Your task to perform on an android device: Open accessibility settings Image 0: 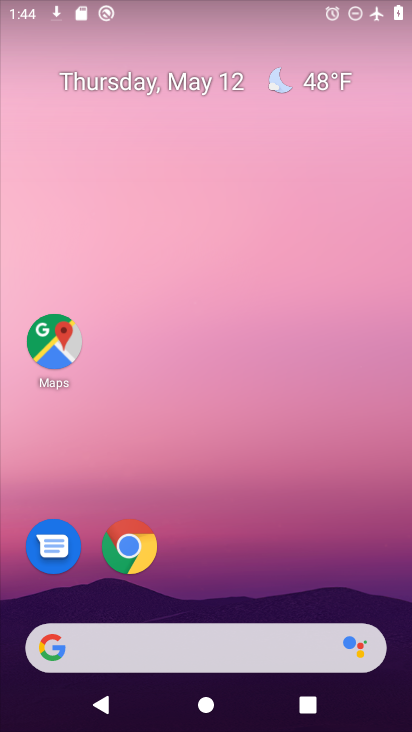
Step 0: drag from (183, 631) to (305, 170)
Your task to perform on an android device: Open accessibility settings Image 1: 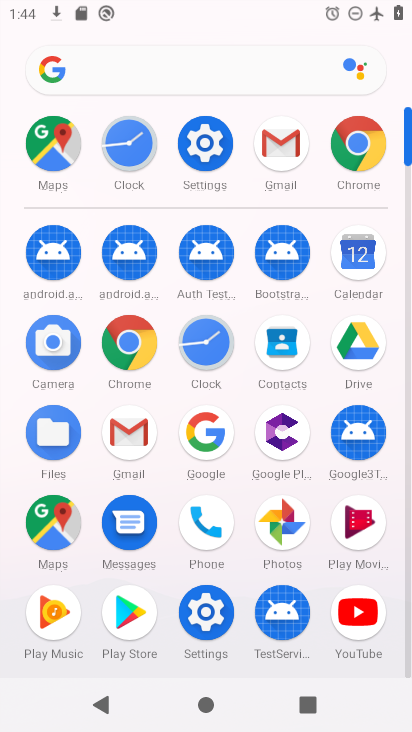
Step 1: click (210, 153)
Your task to perform on an android device: Open accessibility settings Image 2: 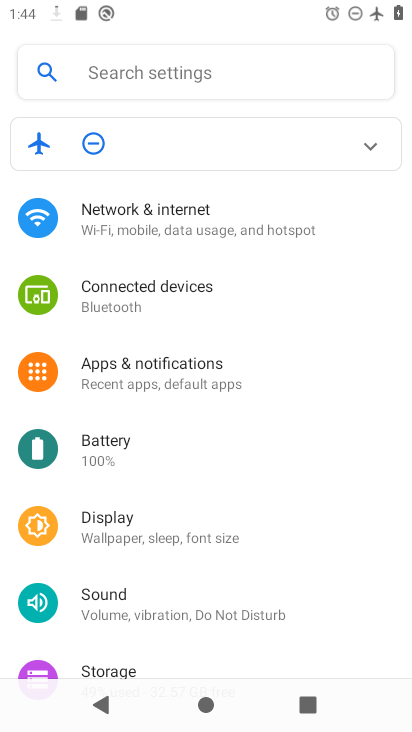
Step 2: drag from (235, 588) to (241, 170)
Your task to perform on an android device: Open accessibility settings Image 3: 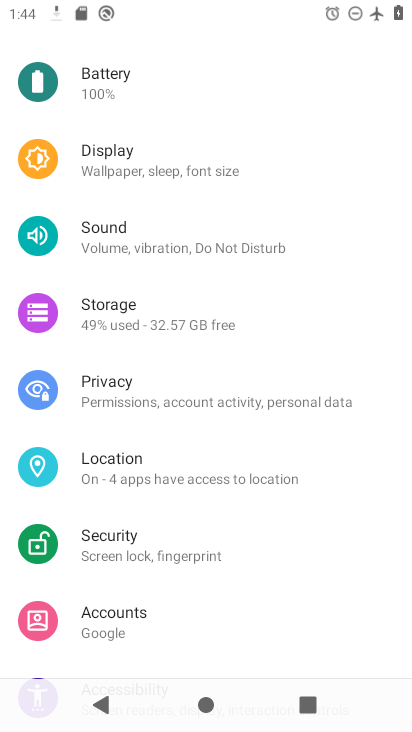
Step 3: drag from (270, 560) to (295, 262)
Your task to perform on an android device: Open accessibility settings Image 4: 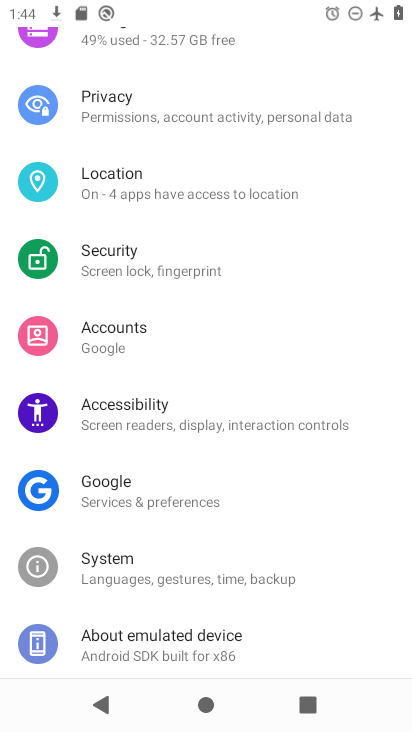
Step 4: click (144, 415)
Your task to perform on an android device: Open accessibility settings Image 5: 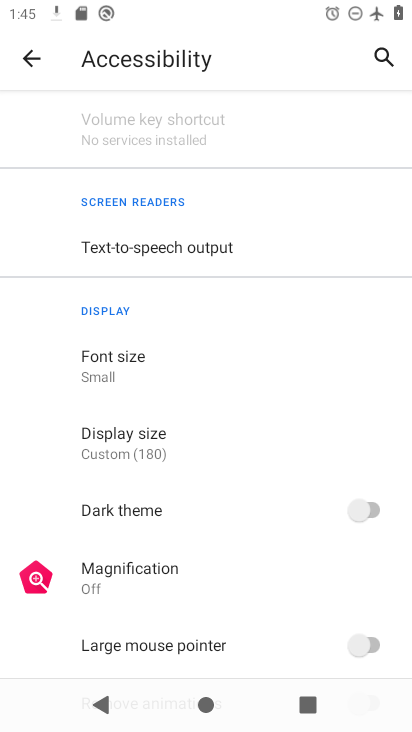
Step 5: task complete